Your task to perform on an android device: allow cookies in the chrome app Image 0: 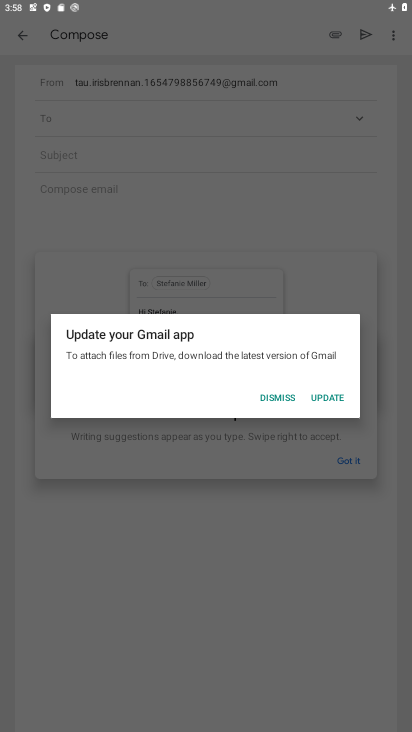
Step 0: press home button
Your task to perform on an android device: allow cookies in the chrome app Image 1: 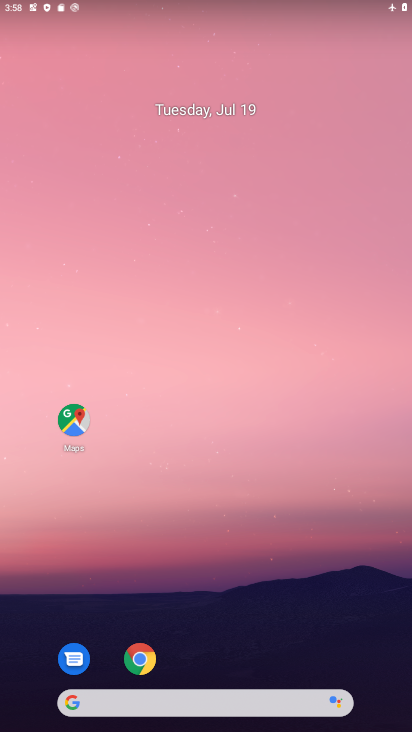
Step 1: drag from (227, 597) to (195, 11)
Your task to perform on an android device: allow cookies in the chrome app Image 2: 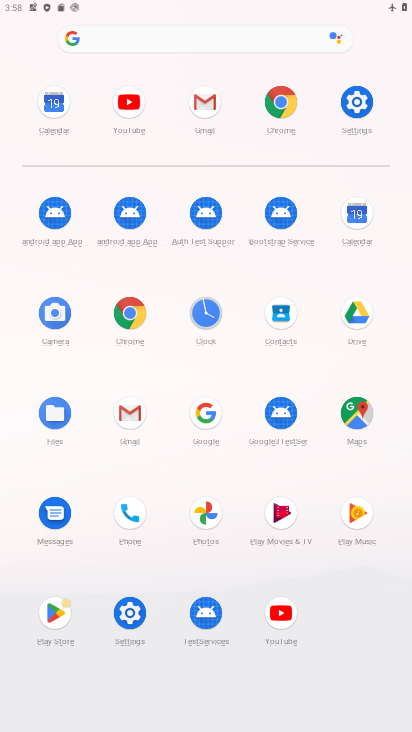
Step 2: click (287, 92)
Your task to perform on an android device: allow cookies in the chrome app Image 3: 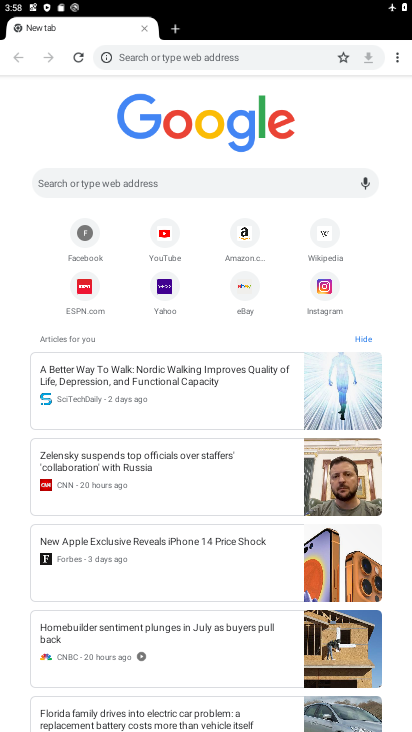
Step 3: drag from (395, 56) to (302, 260)
Your task to perform on an android device: allow cookies in the chrome app Image 4: 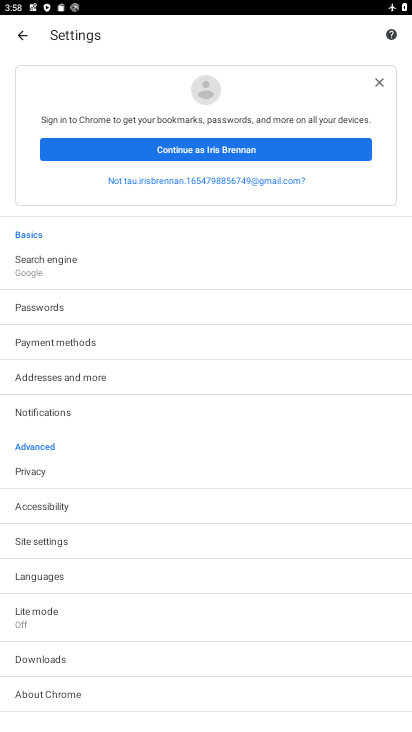
Step 4: drag from (226, 661) to (306, 181)
Your task to perform on an android device: allow cookies in the chrome app Image 5: 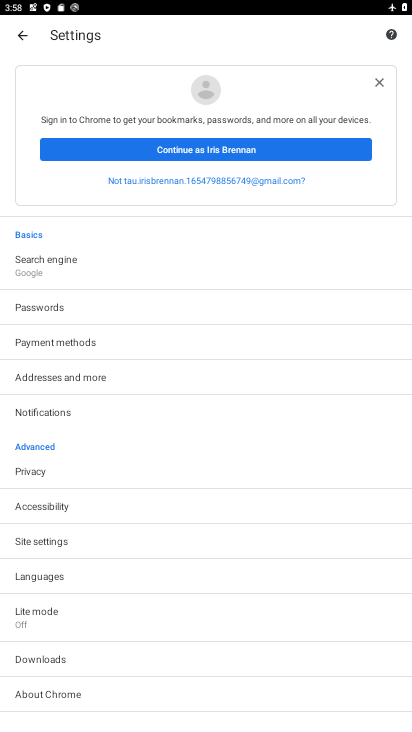
Step 5: drag from (159, 674) to (247, 259)
Your task to perform on an android device: allow cookies in the chrome app Image 6: 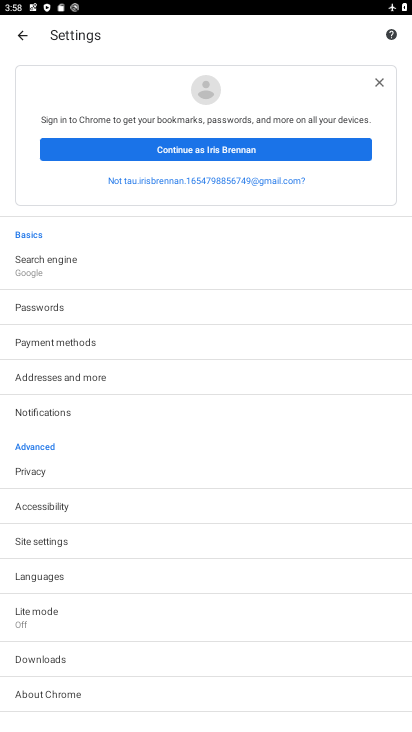
Step 6: click (87, 543)
Your task to perform on an android device: allow cookies in the chrome app Image 7: 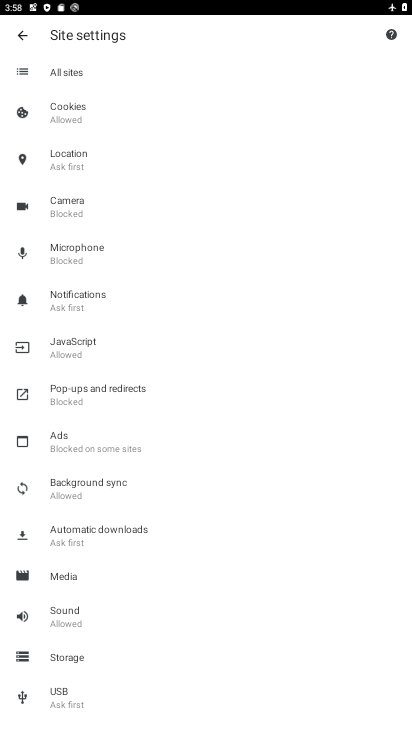
Step 7: click (66, 108)
Your task to perform on an android device: allow cookies in the chrome app Image 8: 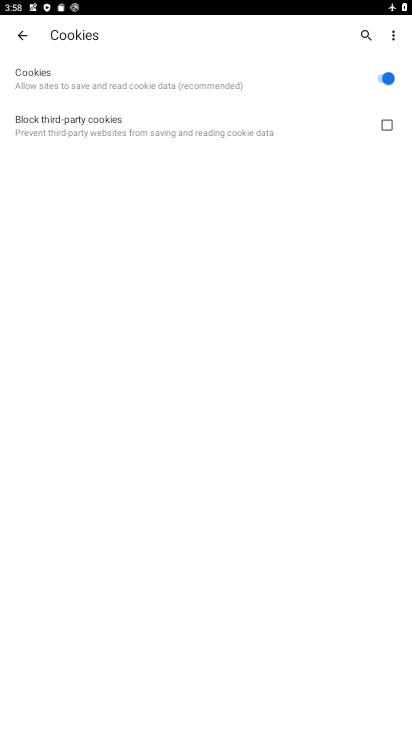
Step 8: task complete